Your task to perform on an android device: remove spam from my inbox in the gmail app Image 0: 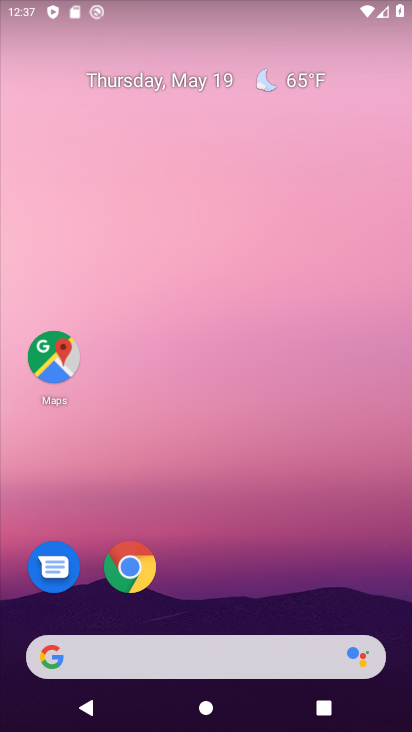
Step 0: drag from (256, 596) to (290, 96)
Your task to perform on an android device: remove spam from my inbox in the gmail app Image 1: 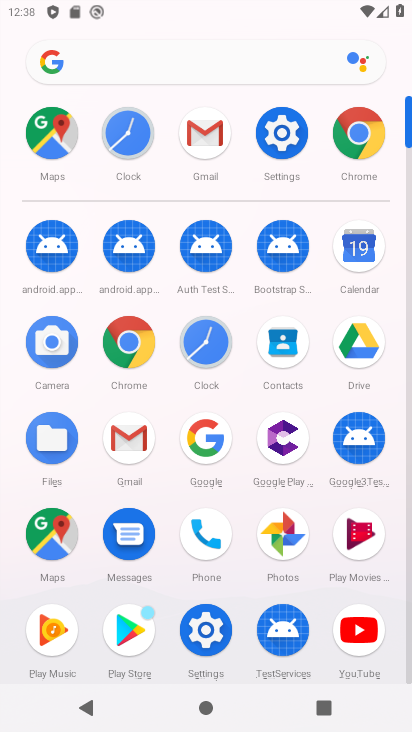
Step 1: click (206, 139)
Your task to perform on an android device: remove spam from my inbox in the gmail app Image 2: 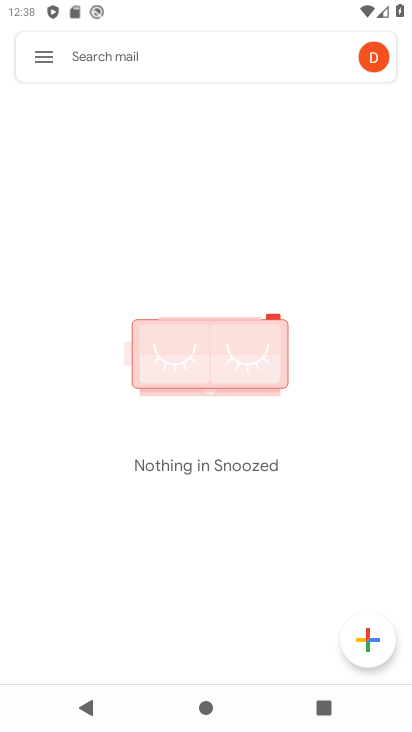
Step 2: click (43, 52)
Your task to perform on an android device: remove spam from my inbox in the gmail app Image 3: 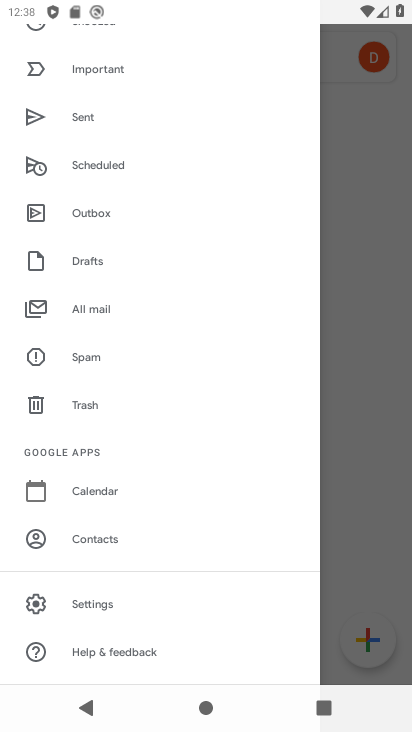
Step 3: click (108, 352)
Your task to perform on an android device: remove spam from my inbox in the gmail app Image 4: 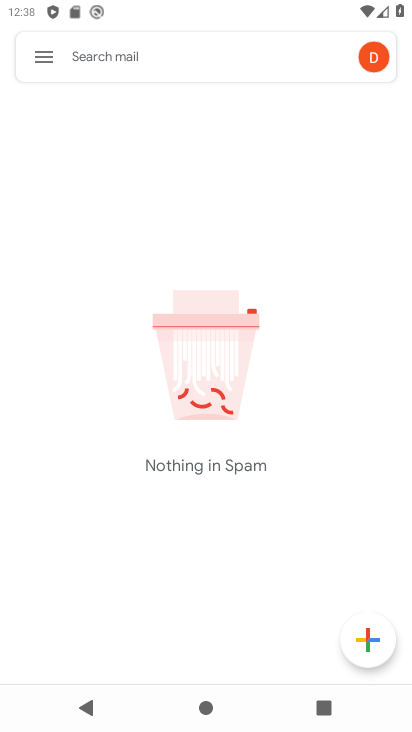
Step 4: task complete